Your task to perform on an android device: turn smart compose on in the gmail app Image 0: 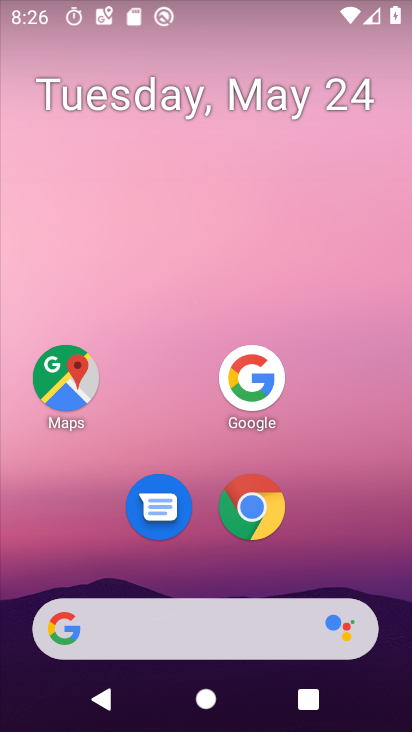
Step 0: press home button
Your task to perform on an android device: turn smart compose on in the gmail app Image 1: 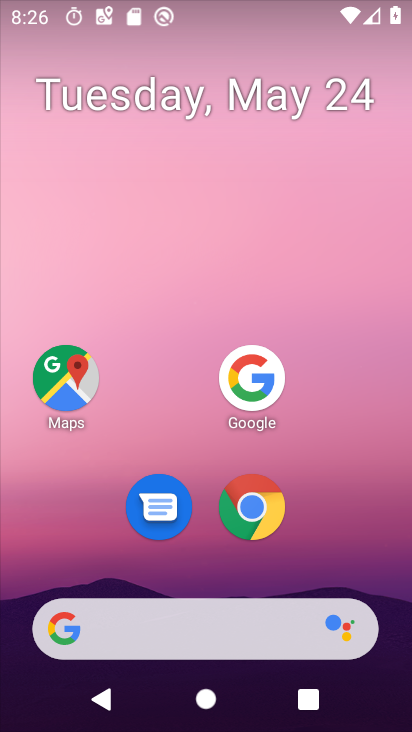
Step 1: drag from (177, 580) to (291, 78)
Your task to perform on an android device: turn smart compose on in the gmail app Image 2: 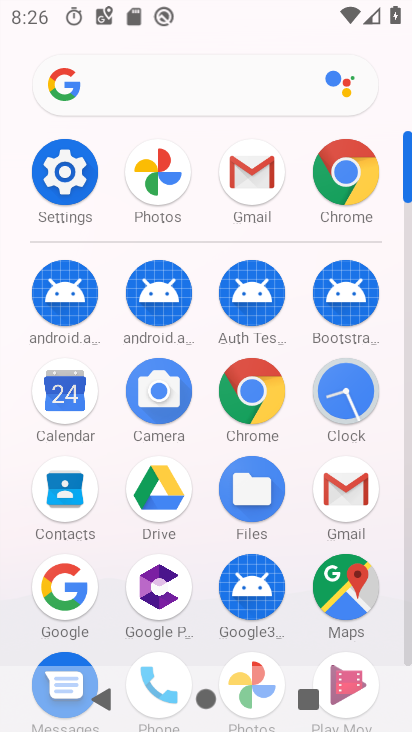
Step 2: click (251, 191)
Your task to perform on an android device: turn smart compose on in the gmail app Image 3: 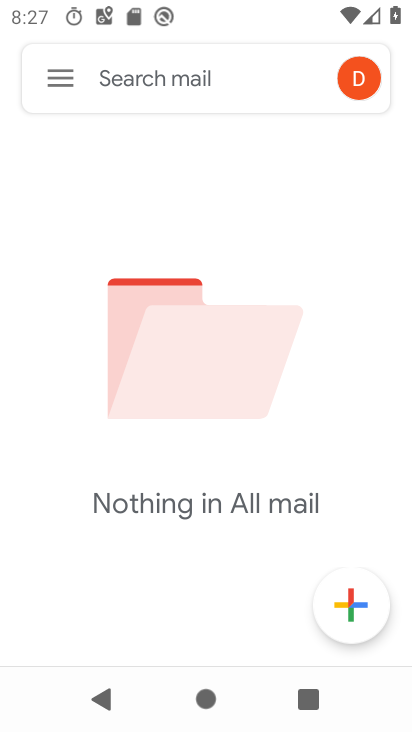
Step 3: click (68, 80)
Your task to perform on an android device: turn smart compose on in the gmail app Image 4: 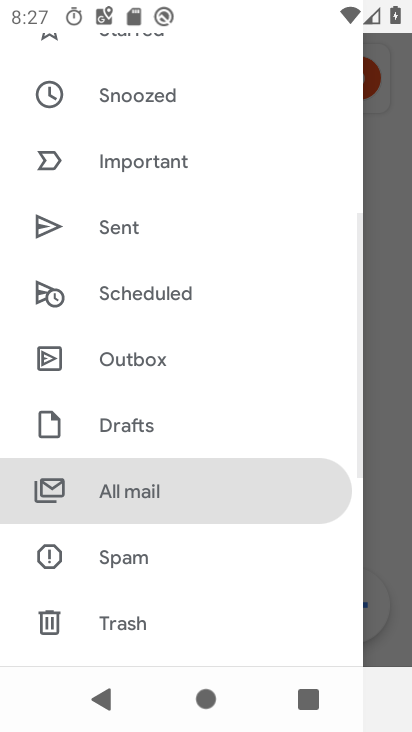
Step 4: drag from (192, 626) to (269, 151)
Your task to perform on an android device: turn smart compose on in the gmail app Image 5: 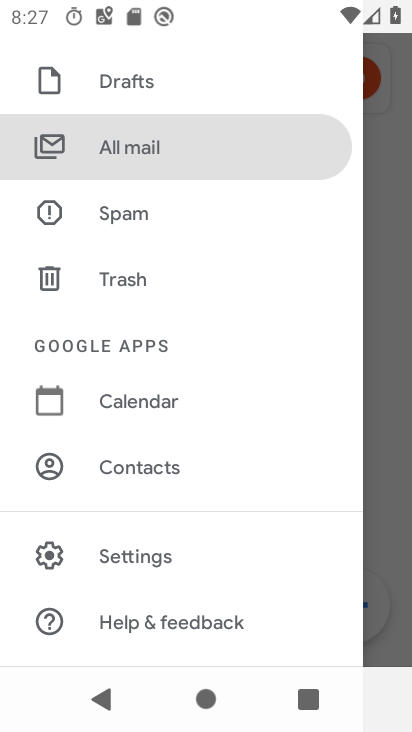
Step 5: click (128, 558)
Your task to perform on an android device: turn smart compose on in the gmail app Image 6: 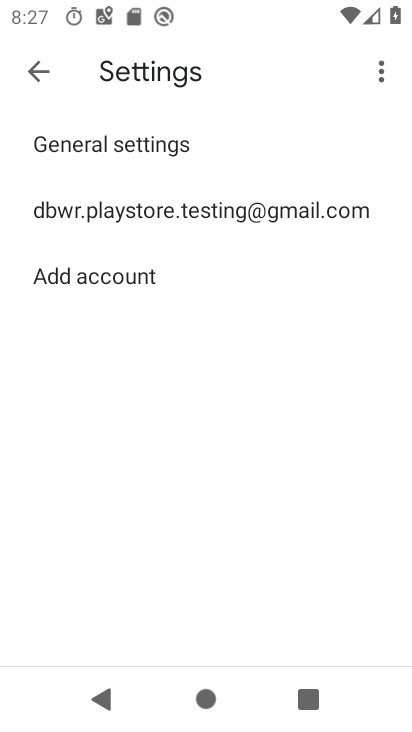
Step 6: click (232, 212)
Your task to perform on an android device: turn smart compose on in the gmail app Image 7: 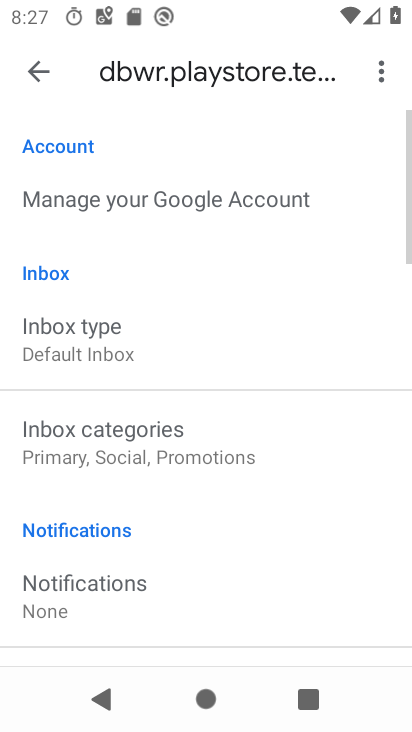
Step 7: task complete